Your task to perform on an android device: toggle notification dots Image 0: 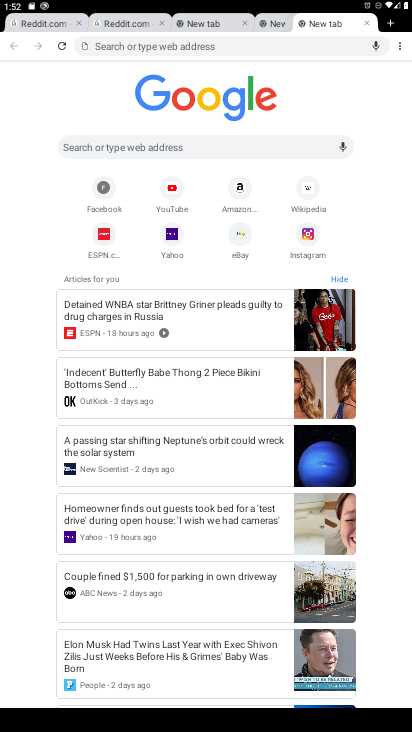
Step 0: press home button
Your task to perform on an android device: toggle notification dots Image 1: 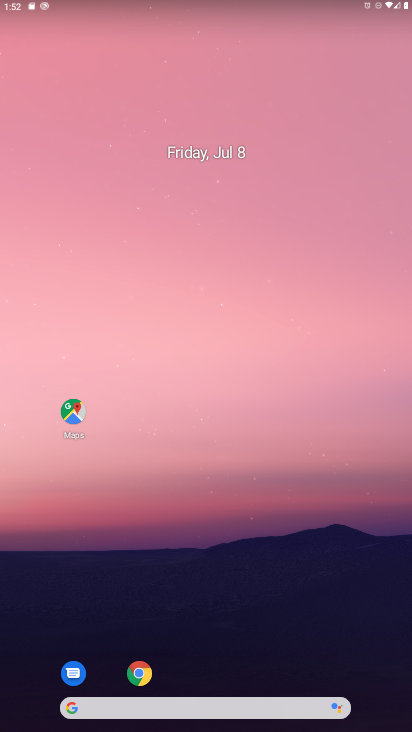
Step 1: drag from (406, 708) to (362, 103)
Your task to perform on an android device: toggle notification dots Image 2: 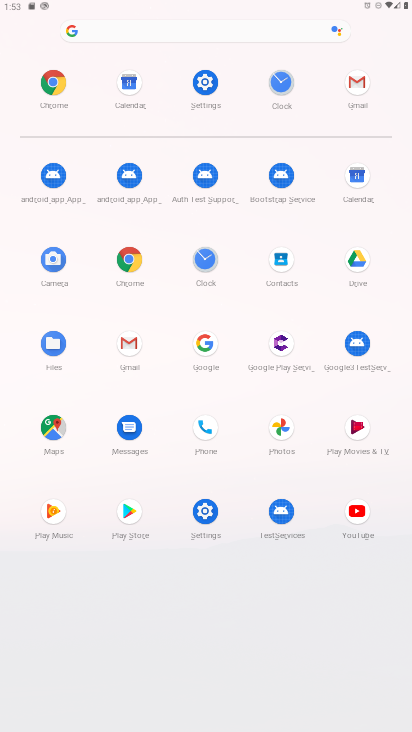
Step 2: press home button
Your task to perform on an android device: toggle notification dots Image 3: 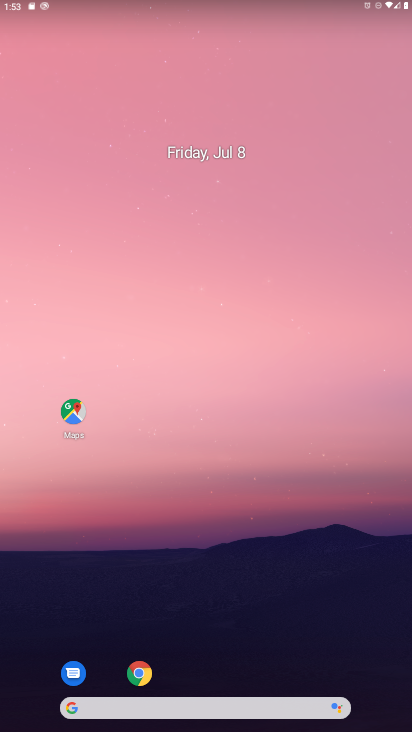
Step 3: drag from (403, 717) to (352, 260)
Your task to perform on an android device: toggle notification dots Image 4: 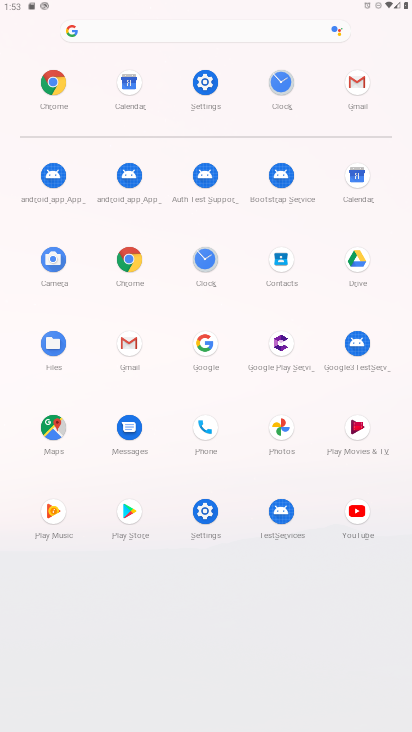
Step 4: click (212, 86)
Your task to perform on an android device: toggle notification dots Image 5: 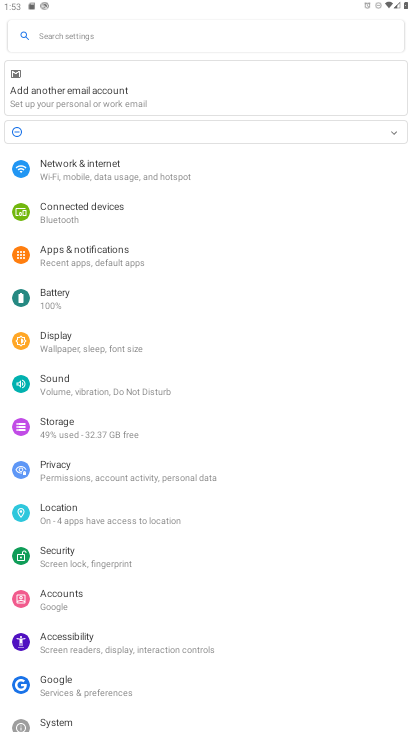
Step 5: click (82, 253)
Your task to perform on an android device: toggle notification dots Image 6: 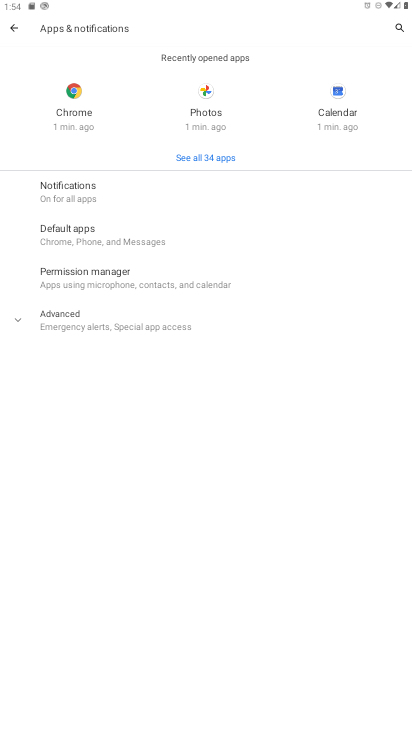
Step 6: click (66, 188)
Your task to perform on an android device: toggle notification dots Image 7: 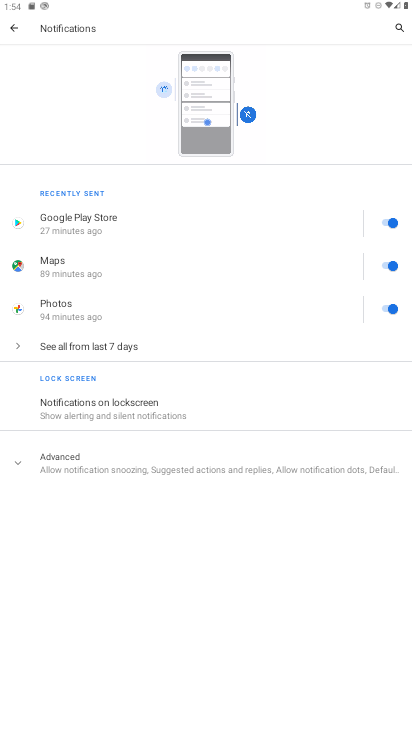
Step 7: click (31, 460)
Your task to perform on an android device: toggle notification dots Image 8: 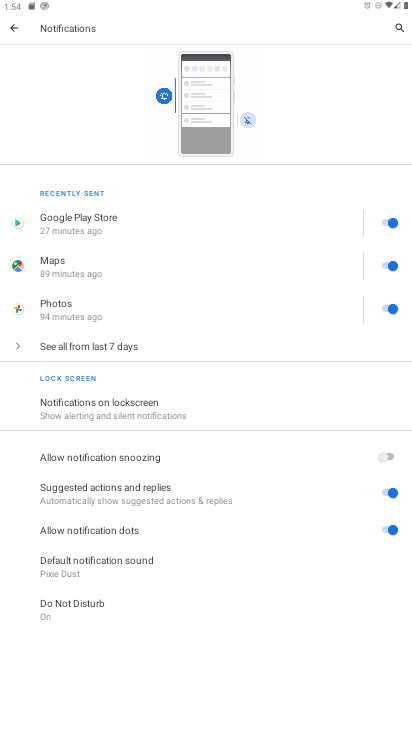
Step 8: click (390, 526)
Your task to perform on an android device: toggle notification dots Image 9: 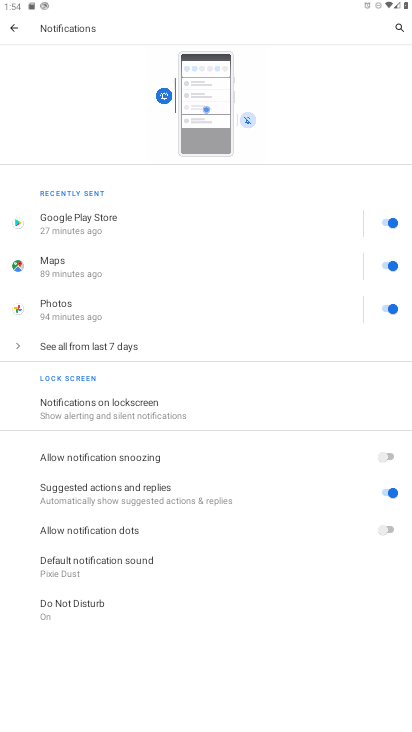
Step 9: task complete